Your task to perform on an android device: Show me recent news Image 0: 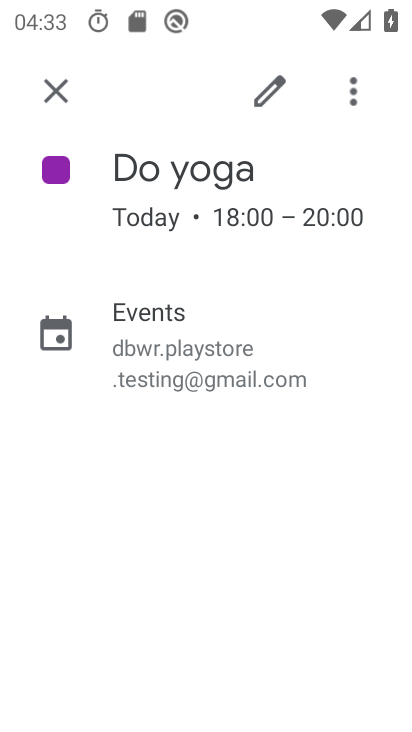
Step 0: press back button
Your task to perform on an android device: Show me recent news Image 1: 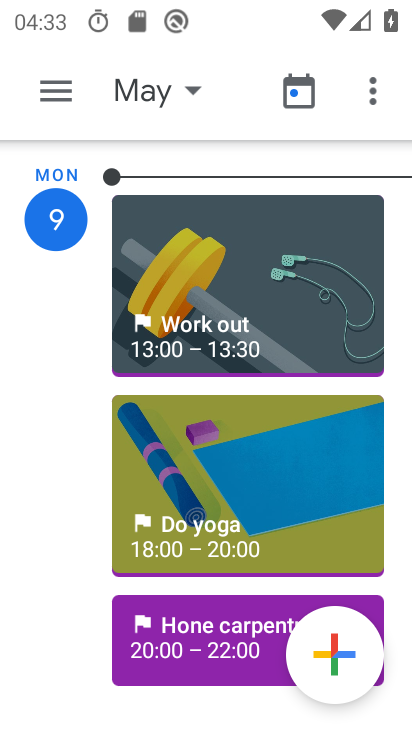
Step 1: press home button
Your task to perform on an android device: Show me recent news Image 2: 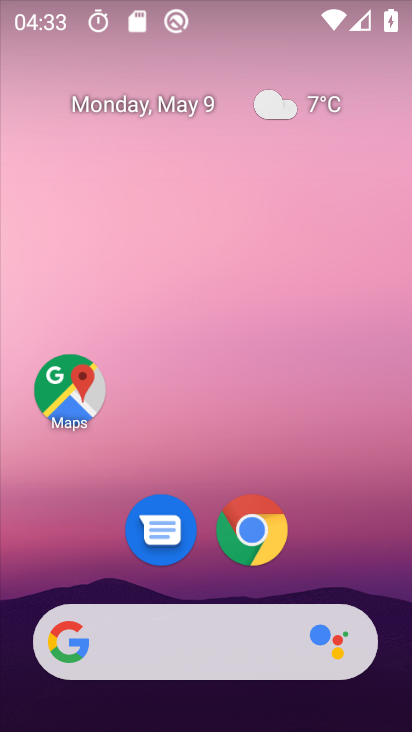
Step 2: click (165, 648)
Your task to perform on an android device: Show me recent news Image 3: 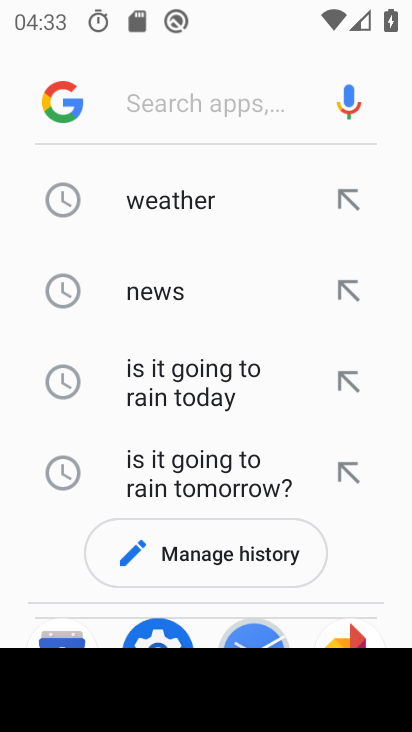
Step 3: click (151, 97)
Your task to perform on an android device: Show me recent news Image 4: 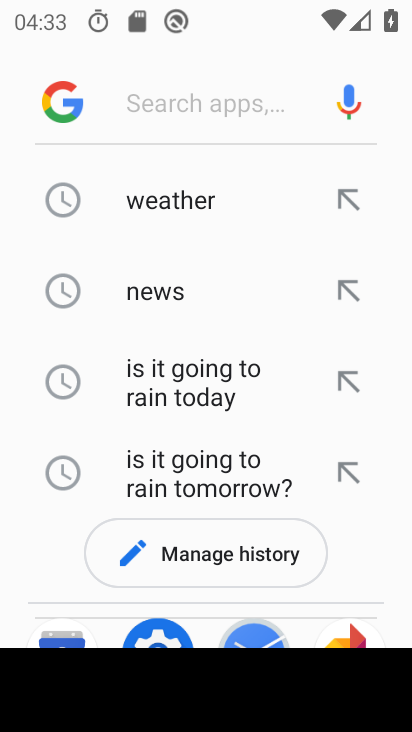
Step 4: type "recent news"
Your task to perform on an android device: Show me recent news Image 5: 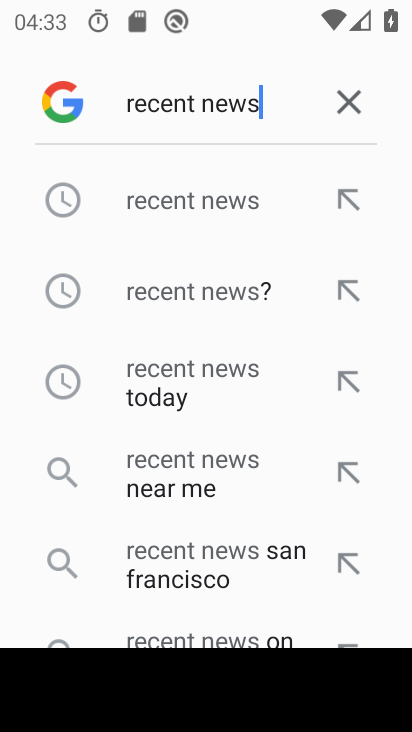
Step 5: click (206, 191)
Your task to perform on an android device: Show me recent news Image 6: 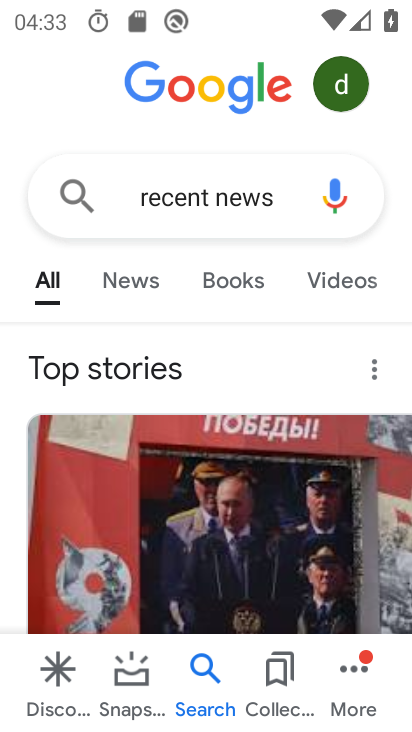
Step 6: task complete